Your task to perform on an android device: When is my next meeting? Image 0: 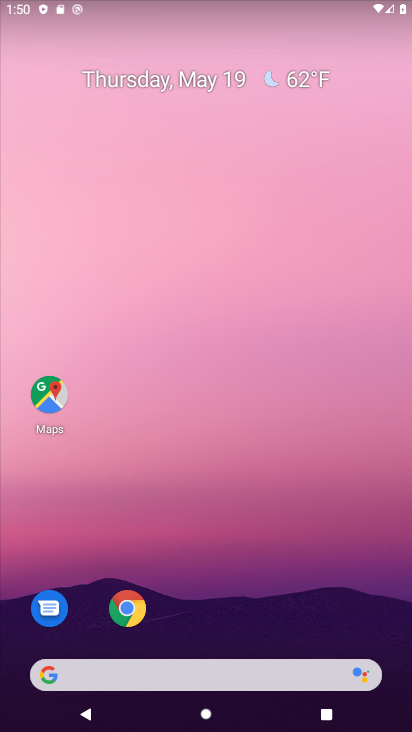
Step 0: drag from (307, 594) to (280, 70)
Your task to perform on an android device: When is my next meeting? Image 1: 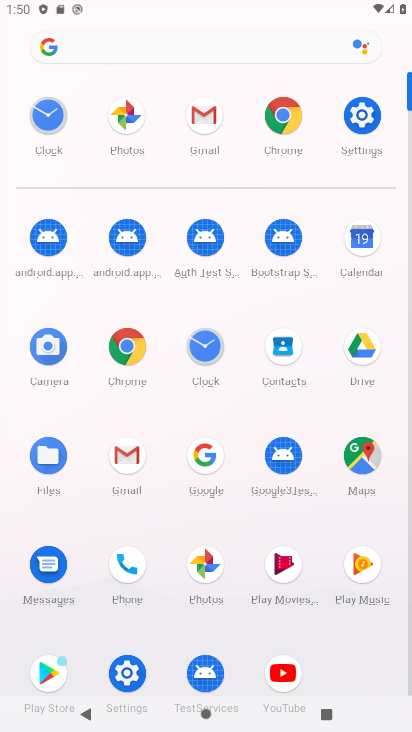
Step 1: click (369, 118)
Your task to perform on an android device: When is my next meeting? Image 2: 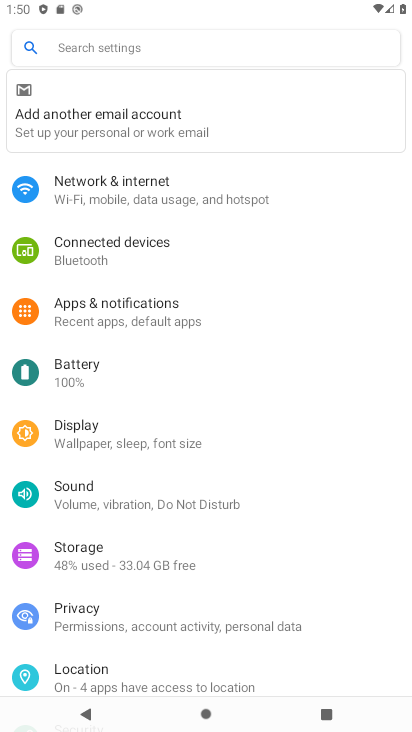
Step 2: press back button
Your task to perform on an android device: When is my next meeting? Image 3: 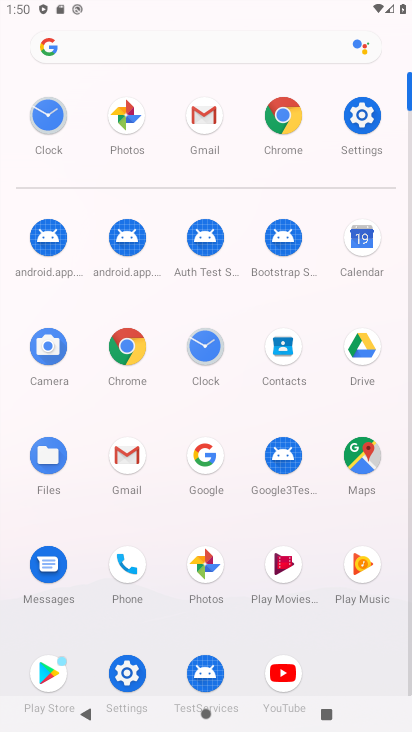
Step 3: click (278, 367)
Your task to perform on an android device: When is my next meeting? Image 4: 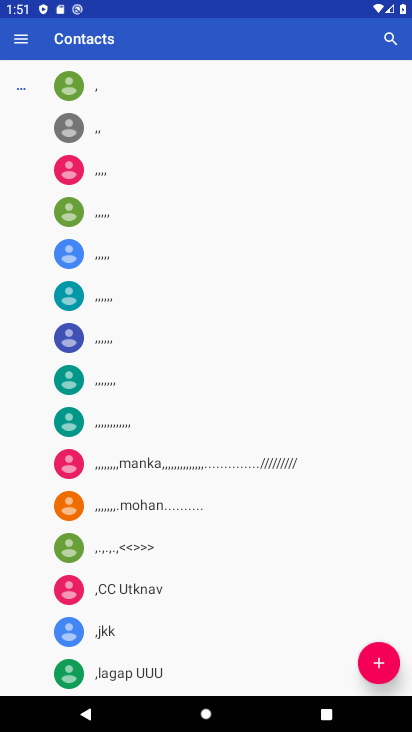
Step 4: press back button
Your task to perform on an android device: When is my next meeting? Image 5: 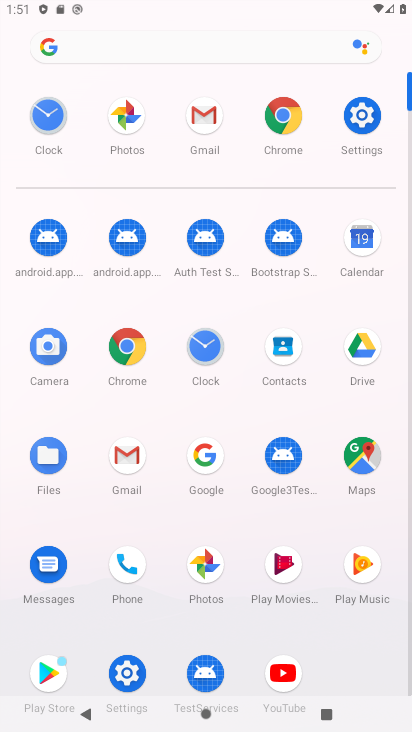
Step 5: click (364, 261)
Your task to perform on an android device: When is my next meeting? Image 6: 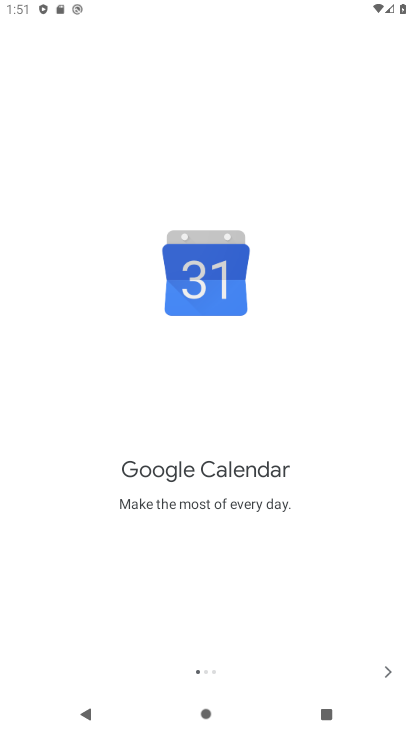
Step 6: click (386, 673)
Your task to perform on an android device: When is my next meeting? Image 7: 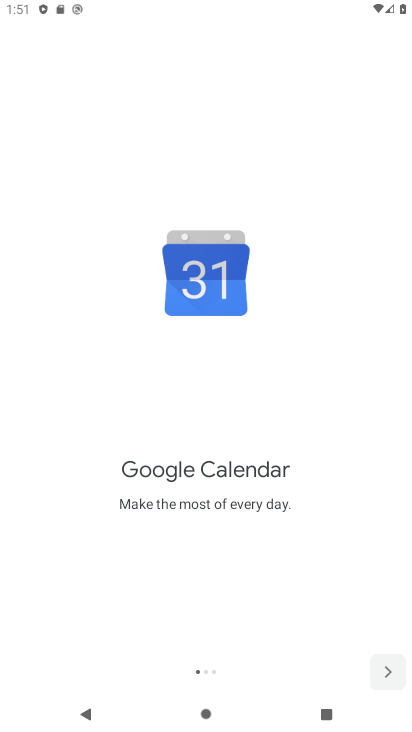
Step 7: click (386, 673)
Your task to perform on an android device: When is my next meeting? Image 8: 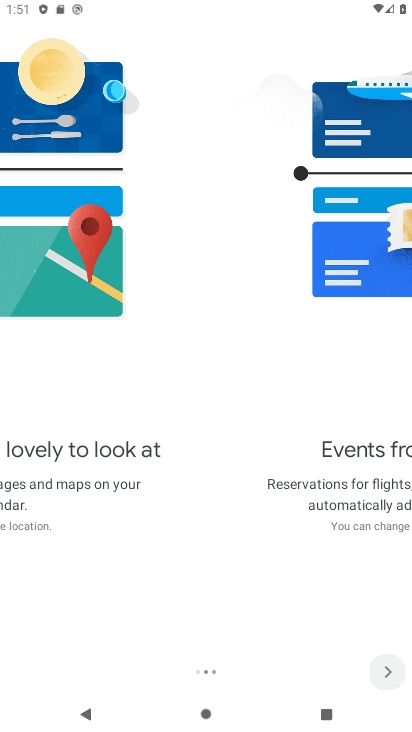
Step 8: click (386, 673)
Your task to perform on an android device: When is my next meeting? Image 9: 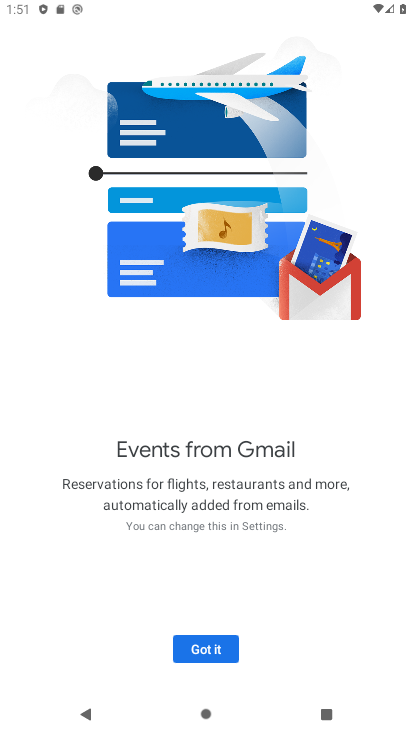
Step 9: click (236, 652)
Your task to perform on an android device: When is my next meeting? Image 10: 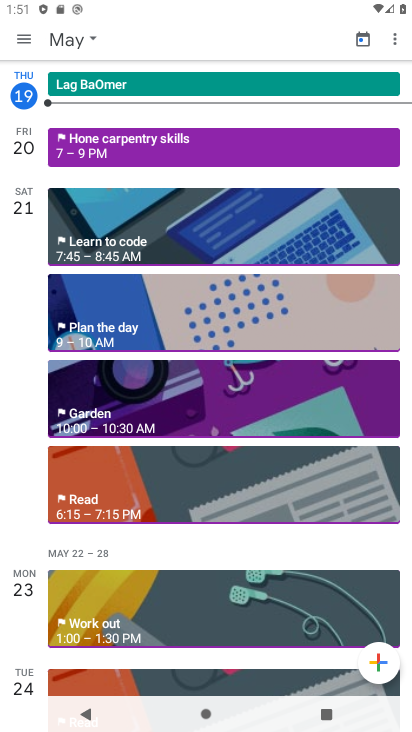
Step 10: task complete